Your task to perform on an android device: toggle priority inbox in the gmail app Image 0: 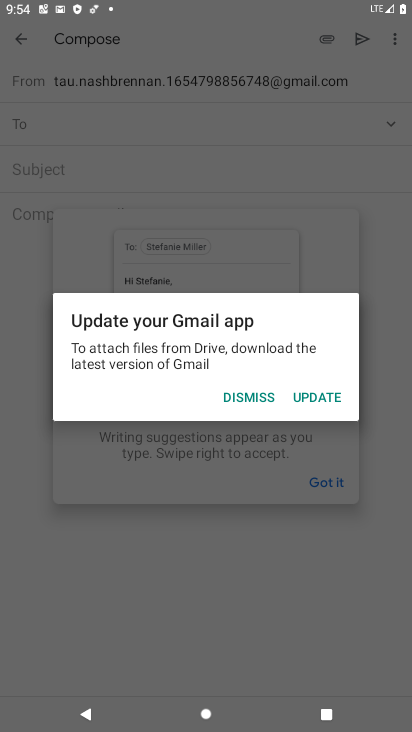
Step 0: press home button
Your task to perform on an android device: toggle priority inbox in the gmail app Image 1: 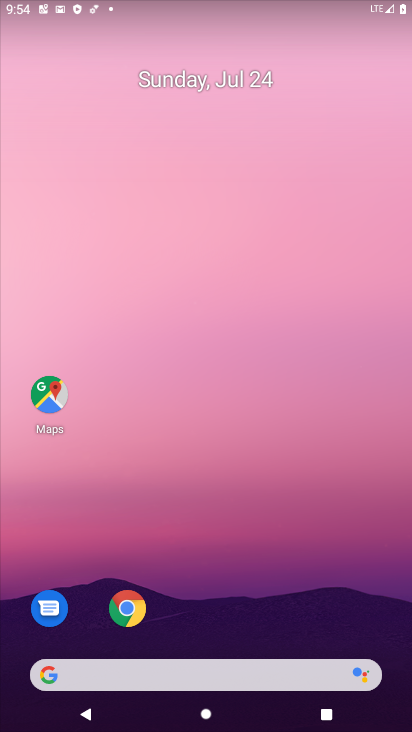
Step 1: drag from (200, 633) to (252, 21)
Your task to perform on an android device: toggle priority inbox in the gmail app Image 2: 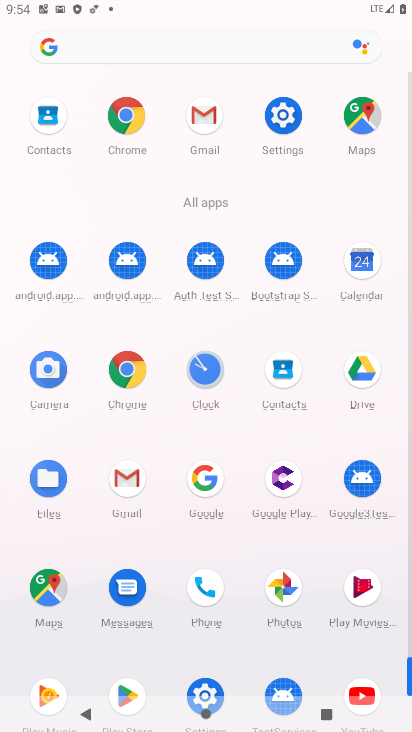
Step 2: click (203, 112)
Your task to perform on an android device: toggle priority inbox in the gmail app Image 3: 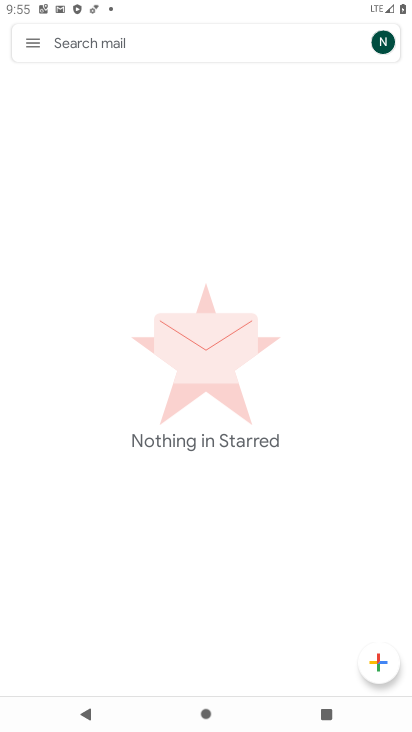
Step 3: click (32, 40)
Your task to perform on an android device: toggle priority inbox in the gmail app Image 4: 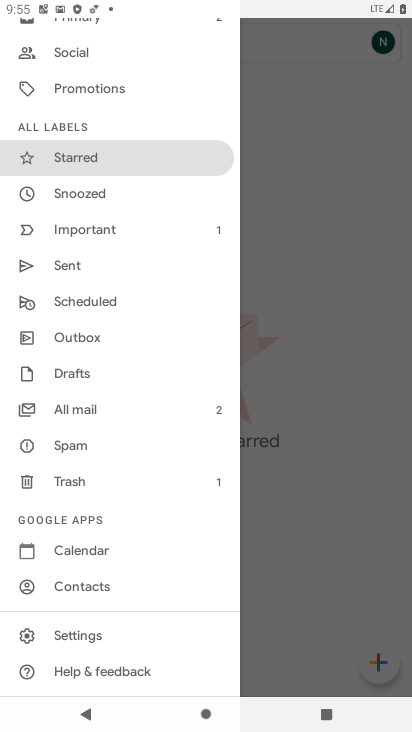
Step 4: drag from (96, 108) to (167, 408)
Your task to perform on an android device: toggle priority inbox in the gmail app Image 5: 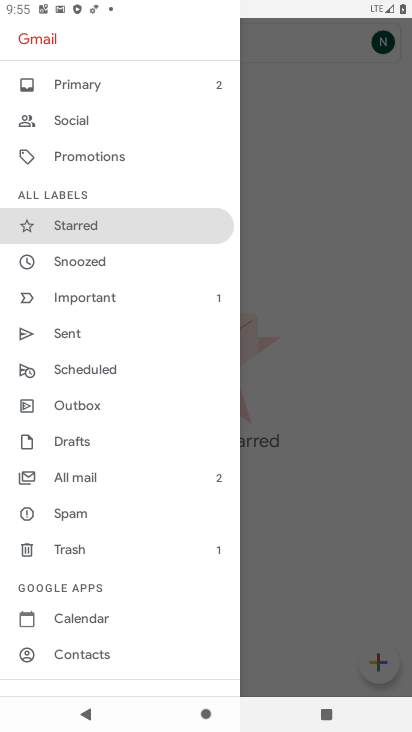
Step 5: drag from (109, 624) to (153, 189)
Your task to perform on an android device: toggle priority inbox in the gmail app Image 6: 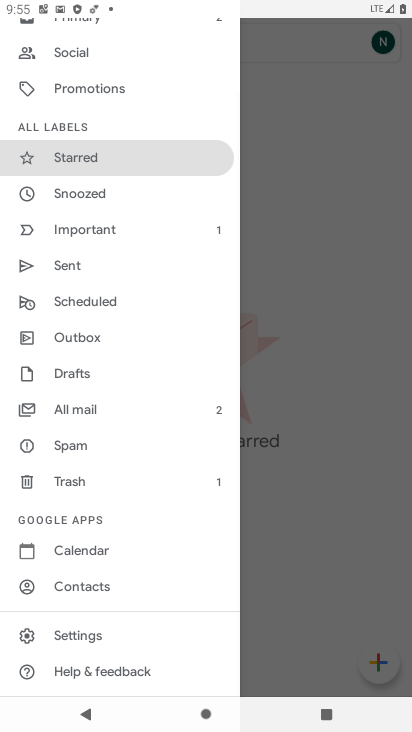
Step 6: click (101, 630)
Your task to perform on an android device: toggle priority inbox in the gmail app Image 7: 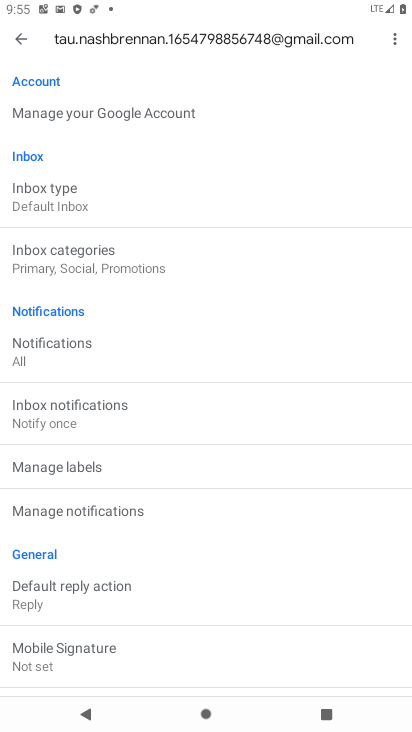
Step 7: click (99, 197)
Your task to perform on an android device: toggle priority inbox in the gmail app Image 8: 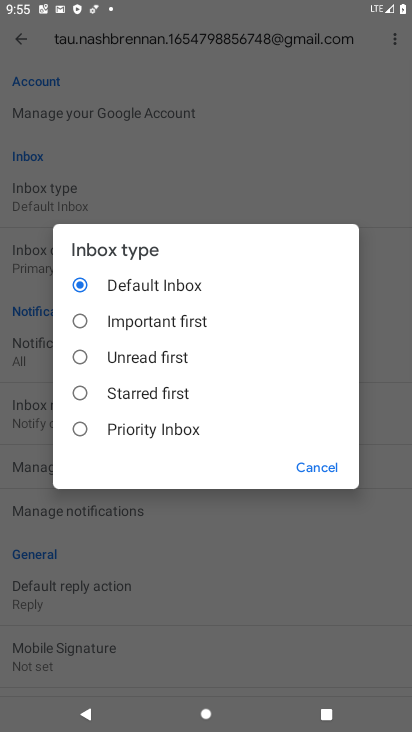
Step 8: click (83, 430)
Your task to perform on an android device: toggle priority inbox in the gmail app Image 9: 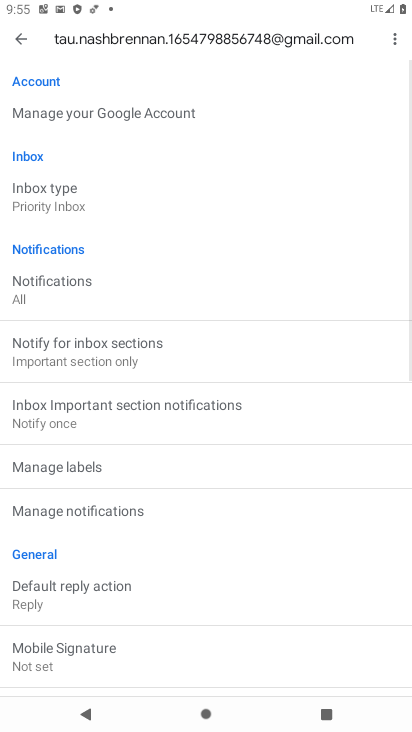
Step 9: task complete